Your task to perform on an android device: Open settings Image 0: 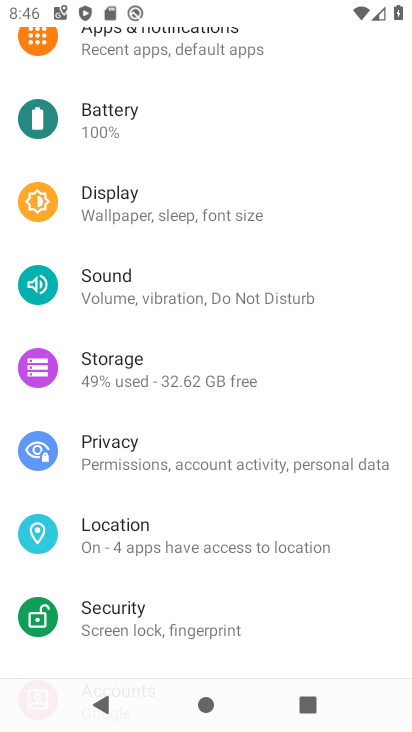
Step 0: drag from (281, 645) to (186, 107)
Your task to perform on an android device: Open settings Image 1: 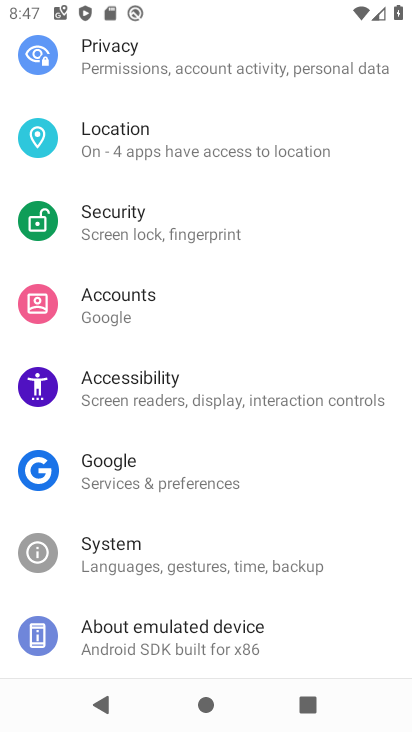
Step 1: task complete